Your task to perform on an android device: Open wifi settings Image 0: 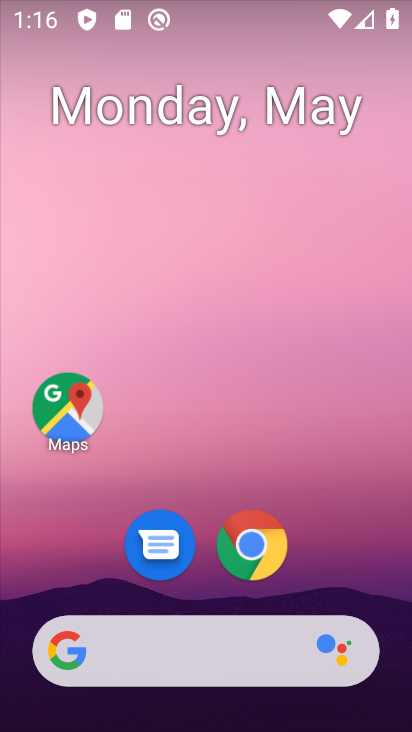
Step 0: drag from (227, 725) to (297, 56)
Your task to perform on an android device: Open wifi settings Image 1: 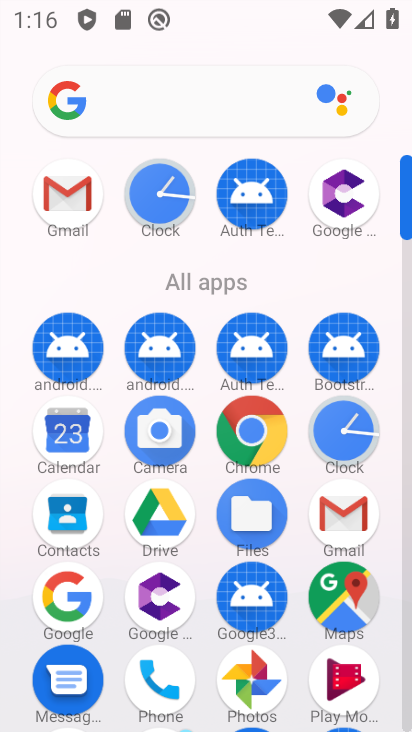
Step 1: drag from (239, 583) to (317, 88)
Your task to perform on an android device: Open wifi settings Image 2: 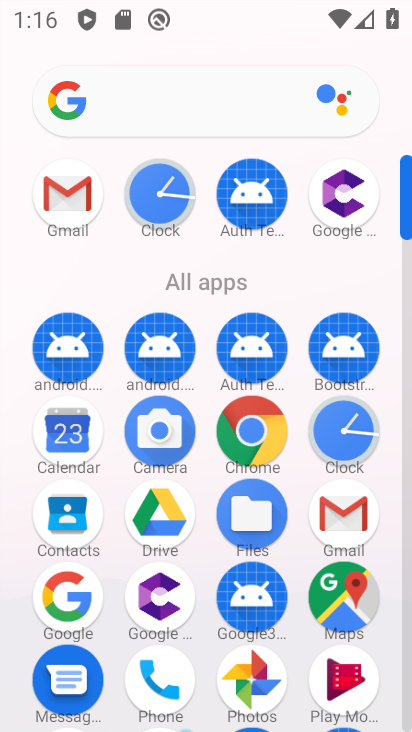
Step 2: drag from (303, 642) to (302, 187)
Your task to perform on an android device: Open wifi settings Image 3: 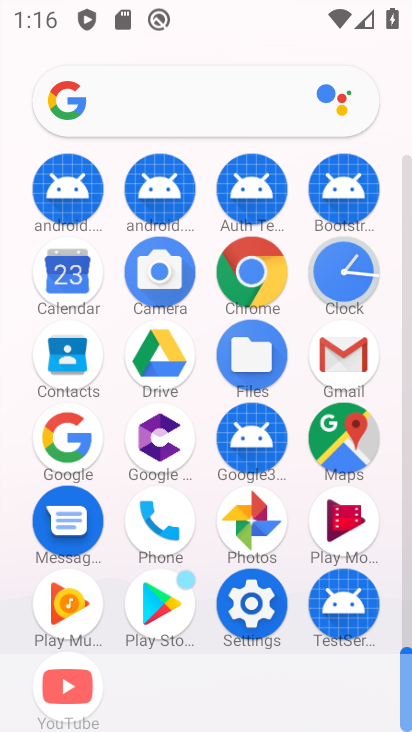
Step 3: click (243, 593)
Your task to perform on an android device: Open wifi settings Image 4: 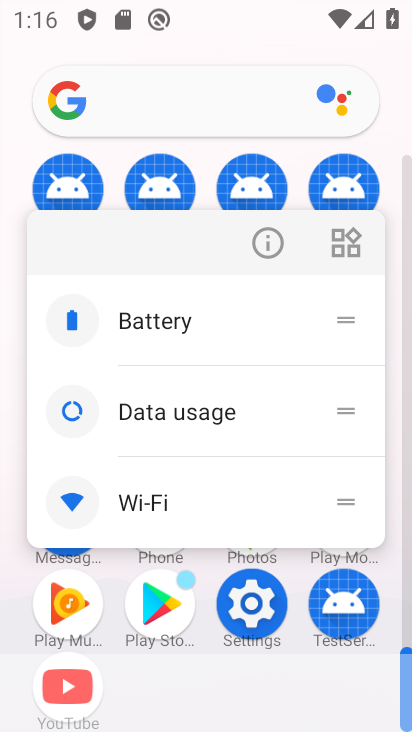
Step 4: click (259, 603)
Your task to perform on an android device: Open wifi settings Image 5: 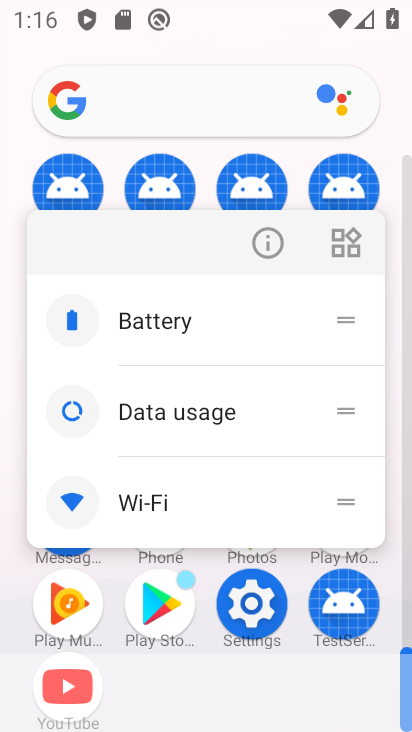
Step 5: click (259, 603)
Your task to perform on an android device: Open wifi settings Image 6: 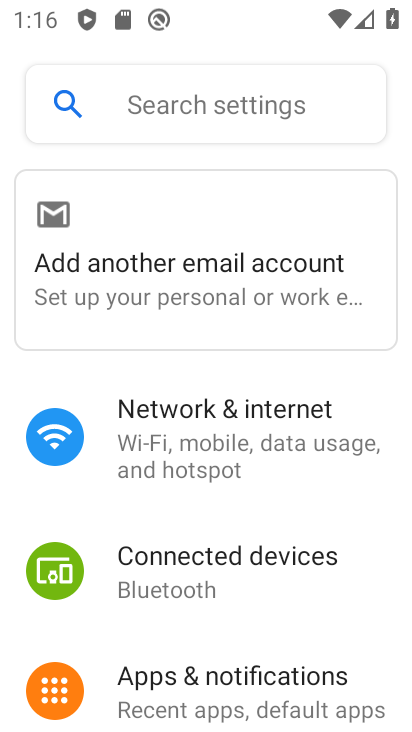
Step 6: click (231, 456)
Your task to perform on an android device: Open wifi settings Image 7: 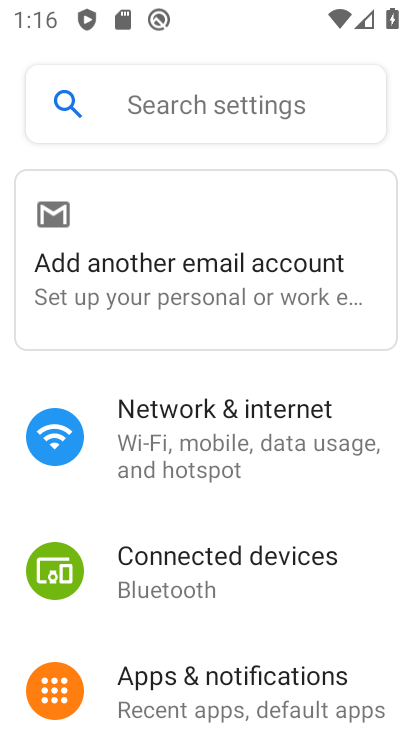
Step 7: click (231, 456)
Your task to perform on an android device: Open wifi settings Image 8: 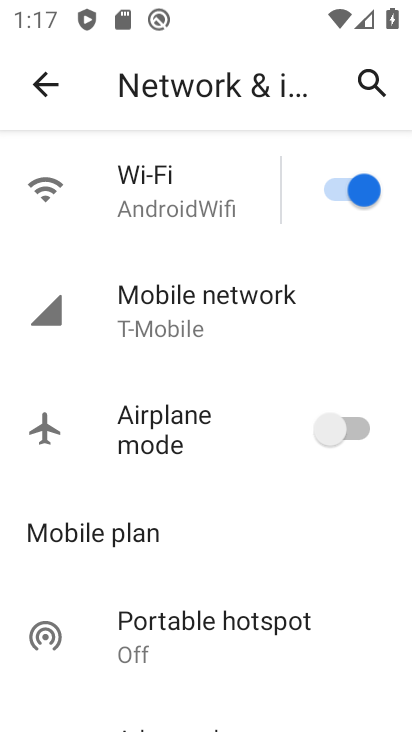
Step 8: click (162, 210)
Your task to perform on an android device: Open wifi settings Image 9: 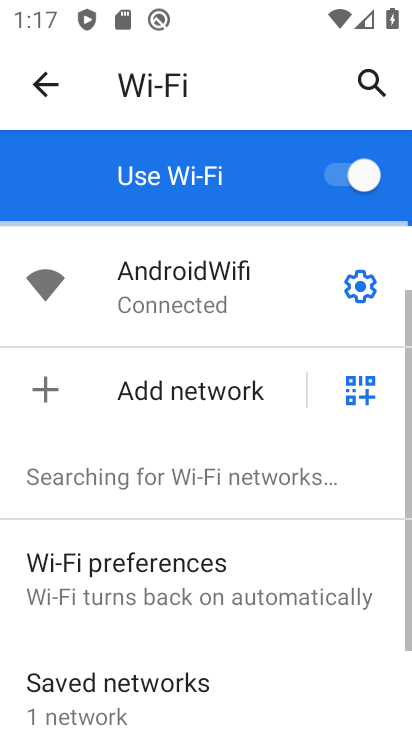
Step 9: click (365, 286)
Your task to perform on an android device: Open wifi settings Image 10: 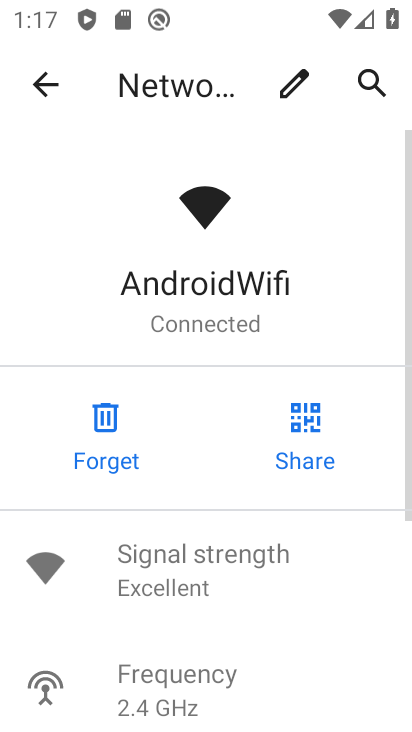
Step 10: task complete